Your task to perform on an android device: change text size in settings app Image 0: 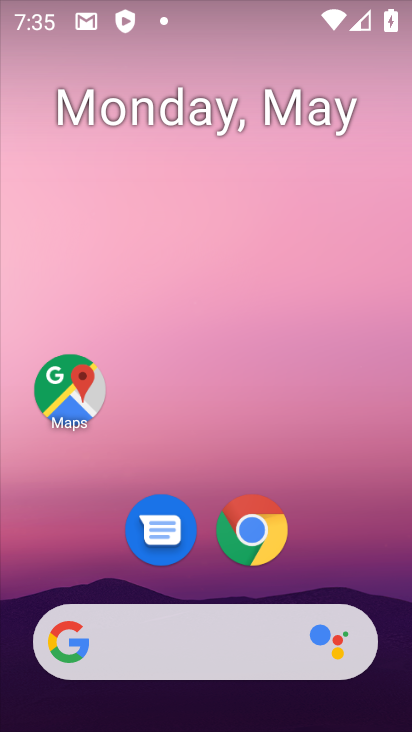
Step 0: drag from (8, 681) to (273, 214)
Your task to perform on an android device: change text size in settings app Image 1: 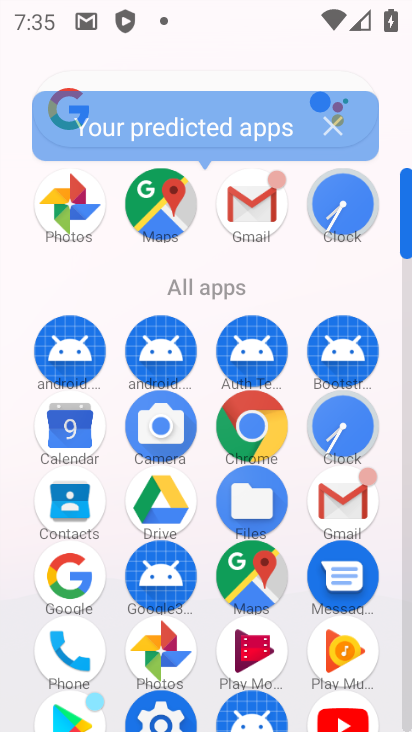
Step 1: click (169, 708)
Your task to perform on an android device: change text size in settings app Image 2: 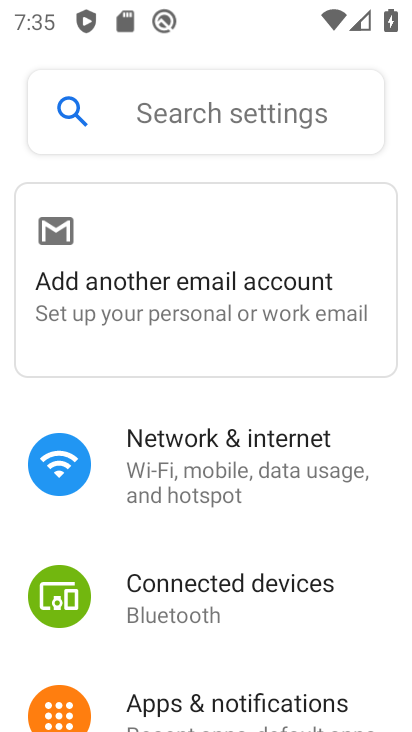
Step 2: drag from (155, 576) to (266, 177)
Your task to perform on an android device: change text size in settings app Image 3: 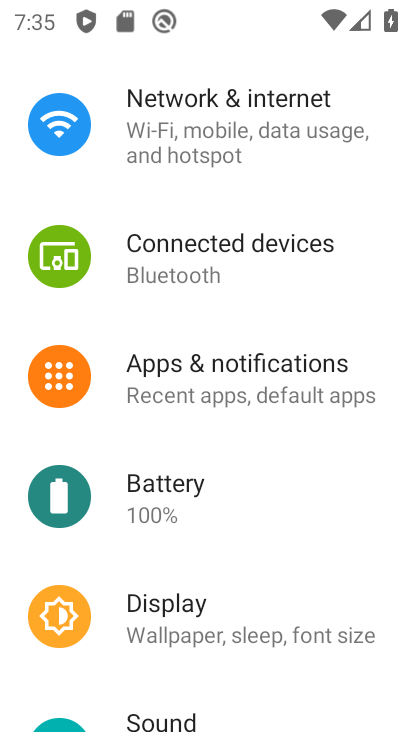
Step 3: drag from (127, 583) to (248, 259)
Your task to perform on an android device: change text size in settings app Image 4: 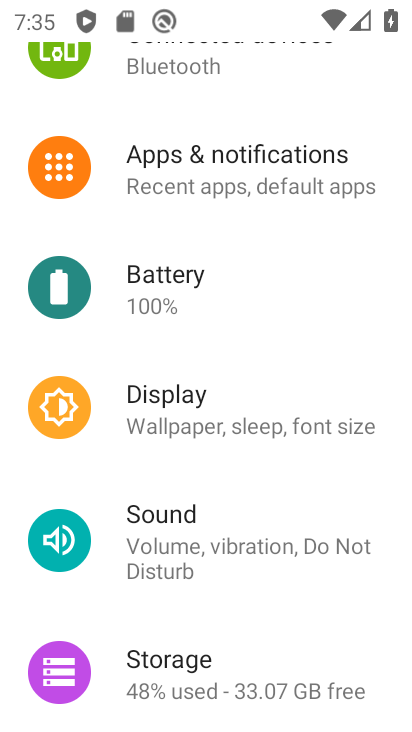
Step 4: click (228, 405)
Your task to perform on an android device: change text size in settings app Image 5: 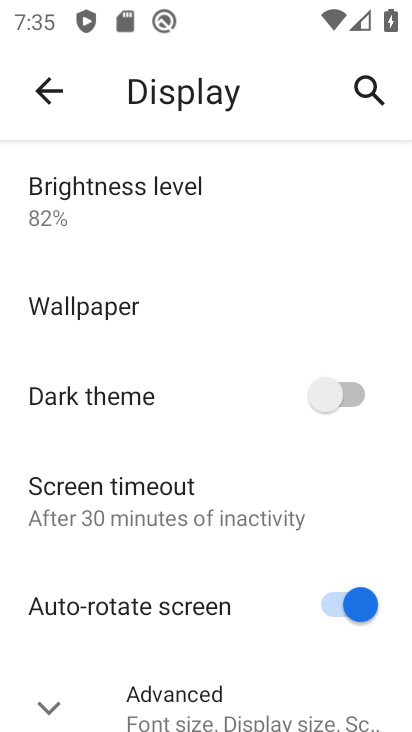
Step 5: click (118, 701)
Your task to perform on an android device: change text size in settings app Image 6: 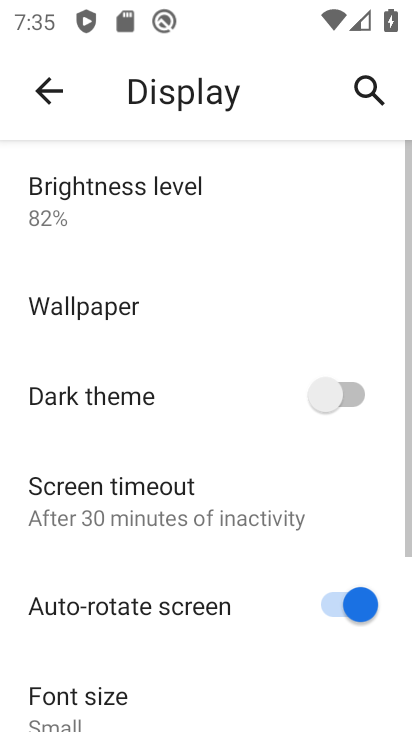
Step 6: drag from (127, 592) to (223, 192)
Your task to perform on an android device: change text size in settings app Image 7: 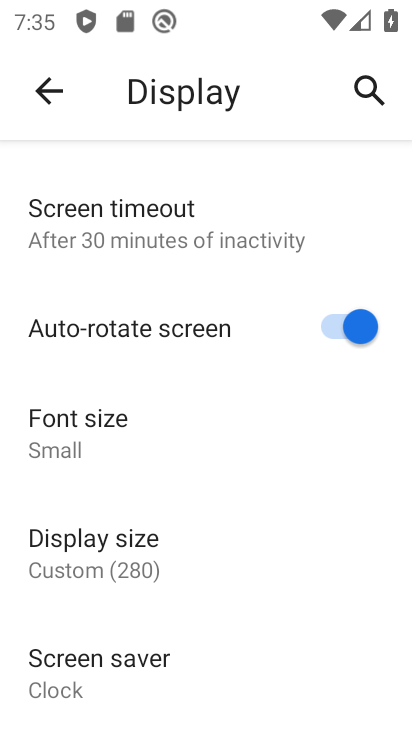
Step 7: click (92, 422)
Your task to perform on an android device: change text size in settings app Image 8: 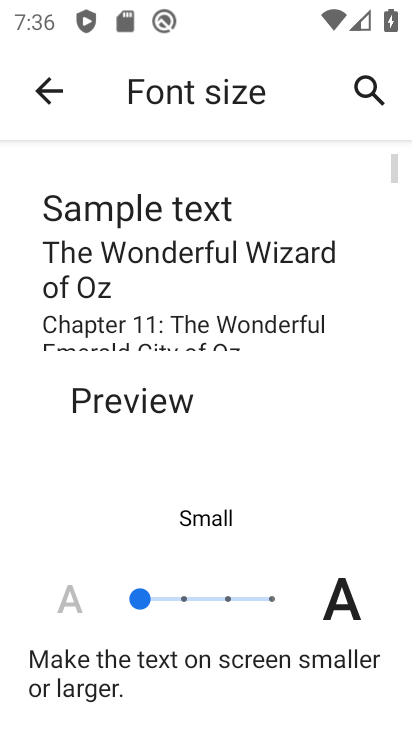
Step 8: click (172, 594)
Your task to perform on an android device: change text size in settings app Image 9: 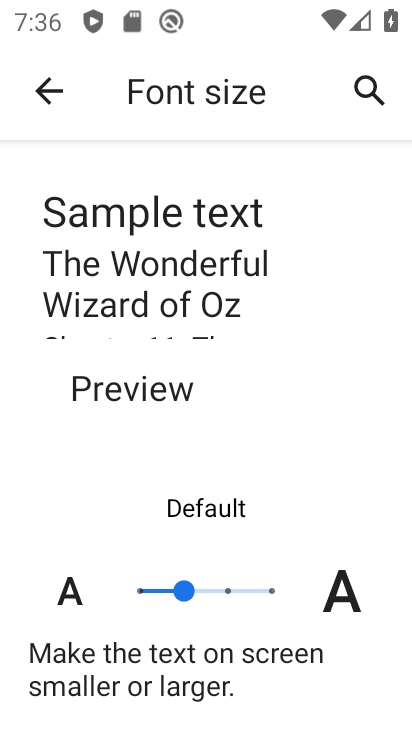
Step 9: task complete